Your task to perform on an android device: Do I have any events tomorrow? Image 0: 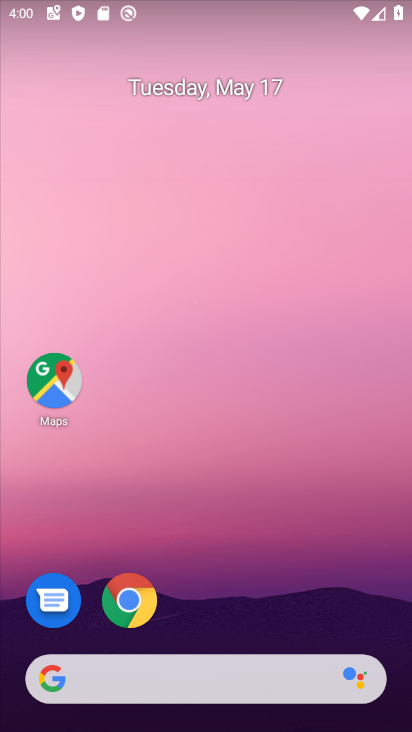
Step 0: drag from (210, 624) to (267, 46)
Your task to perform on an android device: Do I have any events tomorrow? Image 1: 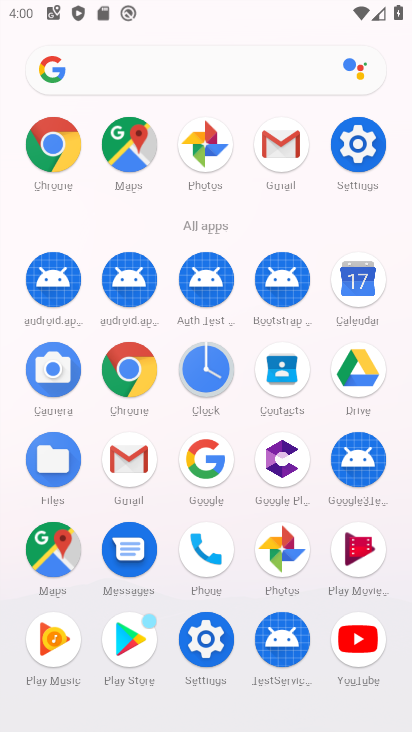
Step 1: click (357, 302)
Your task to perform on an android device: Do I have any events tomorrow? Image 2: 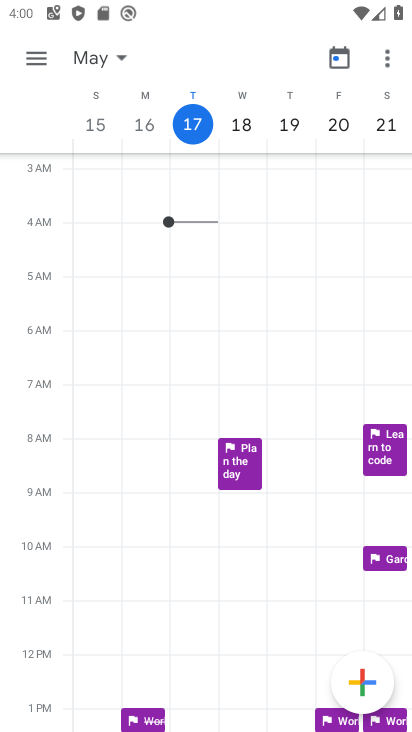
Step 2: click (42, 63)
Your task to perform on an android device: Do I have any events tomorrow? Image 3: 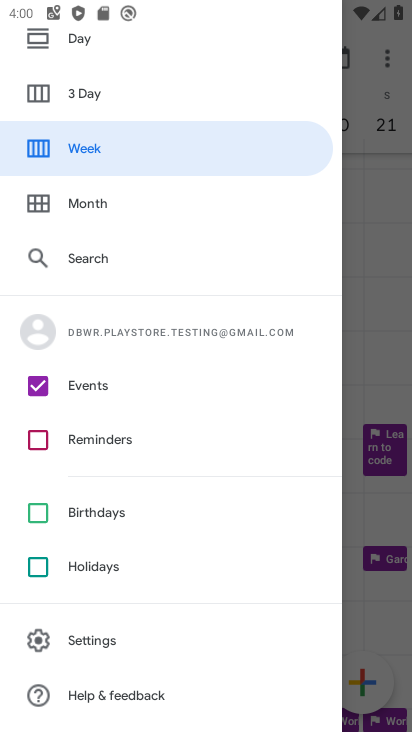
Step 3: click (98, 99)
Your task to perform on an android device: Do I have any events tomorrow? Image 4: 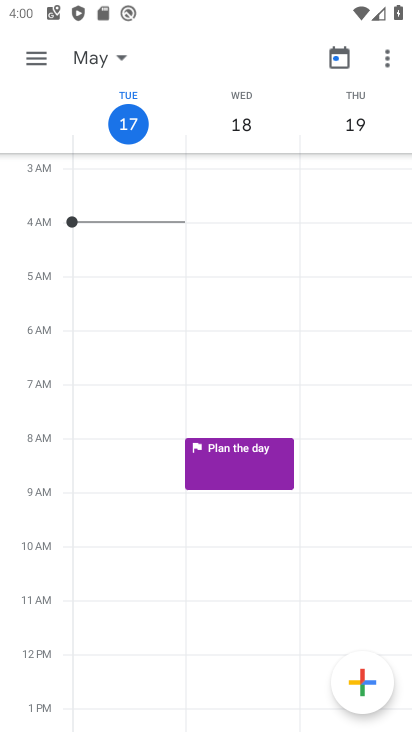
Step 4: task complete